Your task to perform on an android device: open a bookmark in the chrome app Image 0: 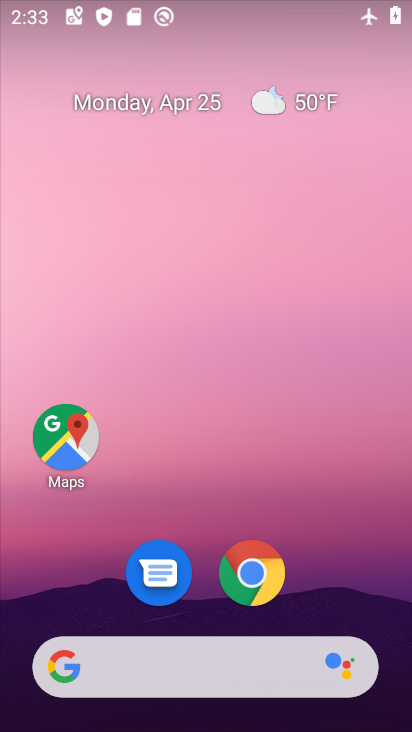
Step 0: drag from (318, 526) to (297, 40)
Your task to perform on an android device: open a bookmark in the chrome app Image 1: 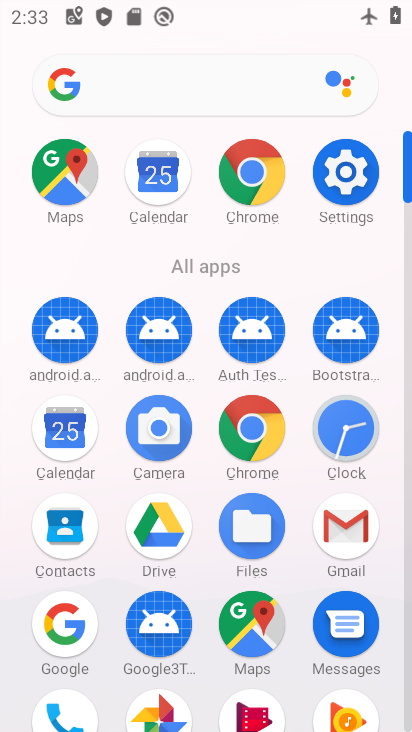
Step 1: click (253, 165)
Your task to perform on an android device: open a bookmark in the chrome app Image 2: 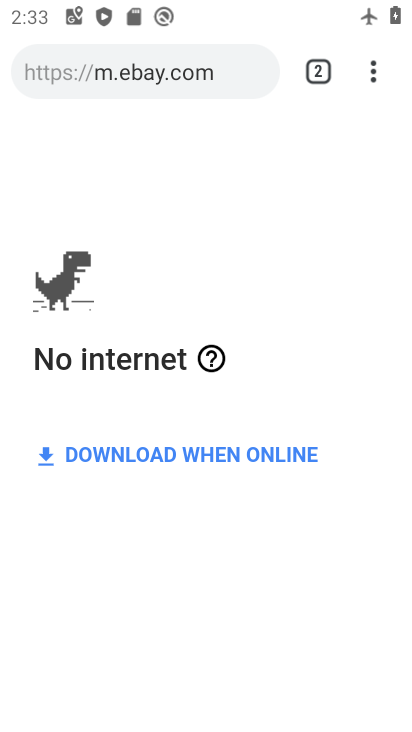
Step 2: drag from (371, 67) to (125, 380)
Your task to perform on an android device: open a bookmark in the chrome app Image 3: 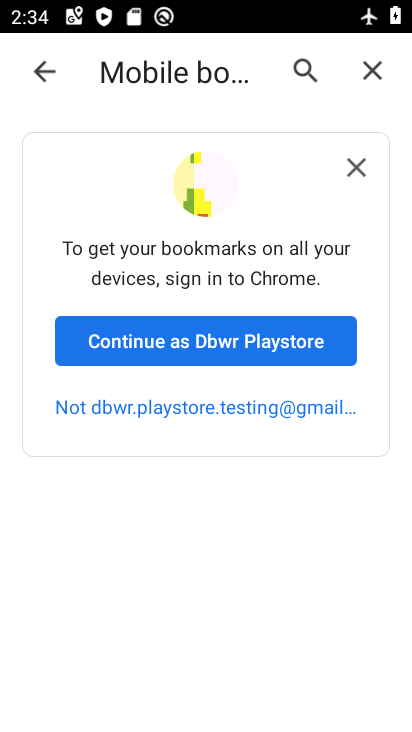
Step 3: click (183, 347)
Your task to perform on an android device: open a bookmark in the chrome app Image 4: 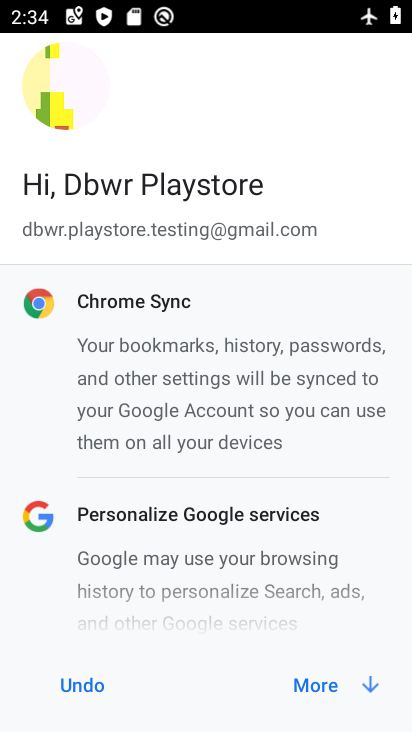
Step 4: click (309, 681)
Your task to perform on an android device: open a bookmark in the chrome app Image 5: 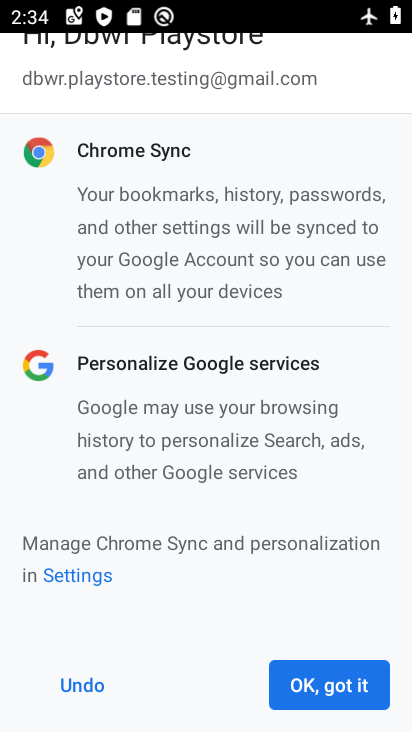
Step 5: click (310, 679)
Your task to perform on an android device: open a bookmark in the chrome app Image 6: 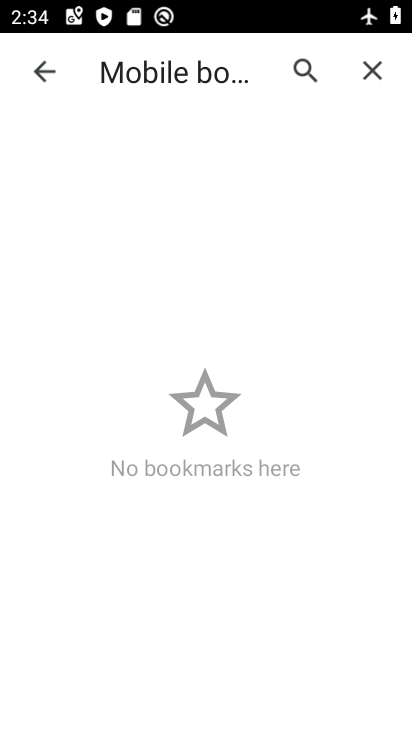
Step 6: task complete